Your task to perform on an android device: delete the emails in spam in the gmail app Image 0: 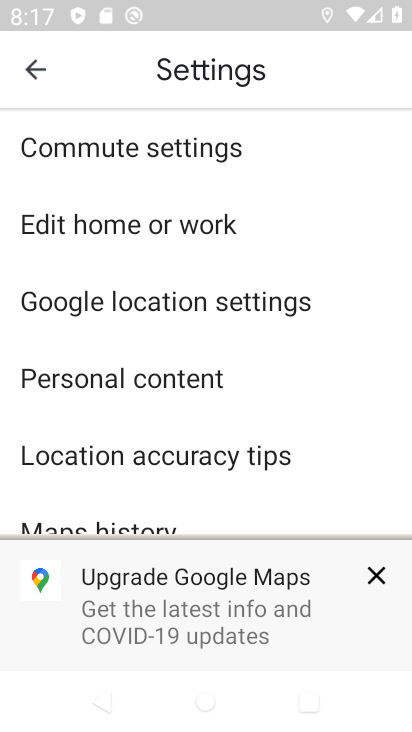
Step 0: press home button
Your task to perform on an android device: delete the emails in spam in the gmail app Image 1: 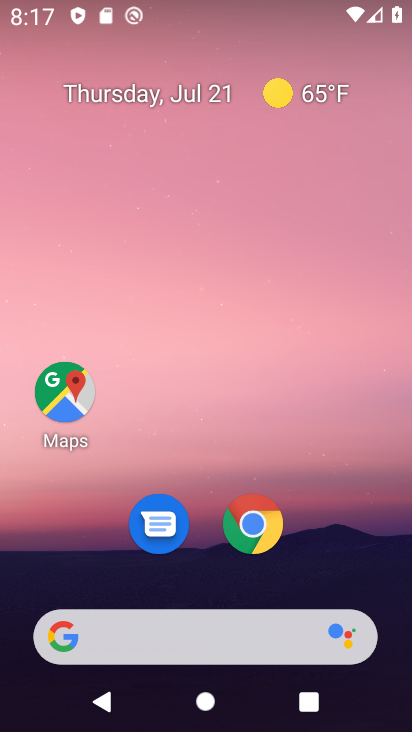
Step 1: drag from (223, 476) to (181, 195)
Your task to perform on an android device: delete the emails in spam in the gmail app Image 2: 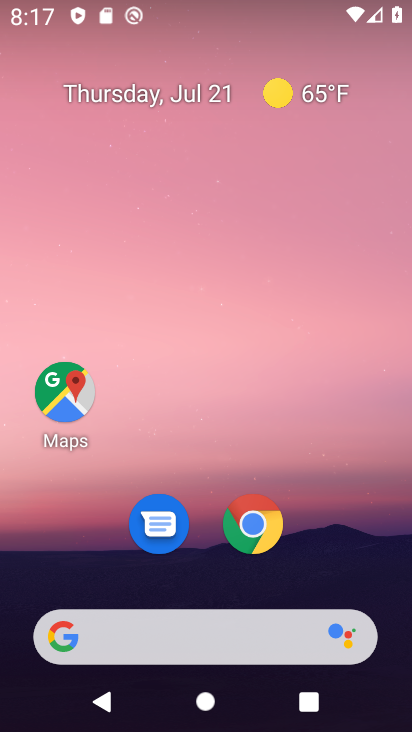
Step 2: drag from (181, 637) to (148, 150)
Your task to perform on an android device: delete the emails in spam in the gmail app Image 3: 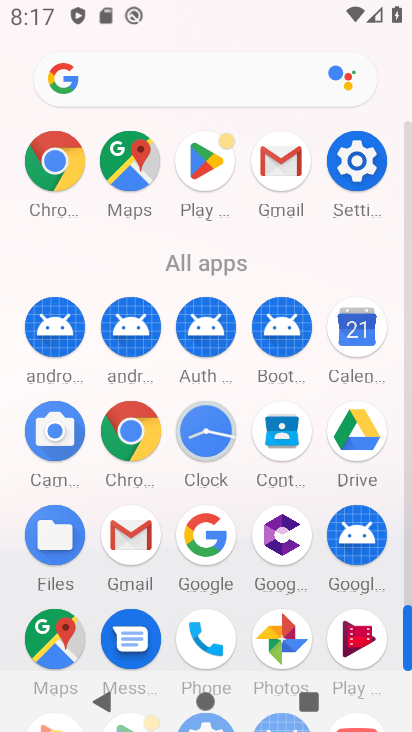
Step 3: click (264, 172)
Your task to perform on an android device: delete the emails in spam in the gmail app Image 4: 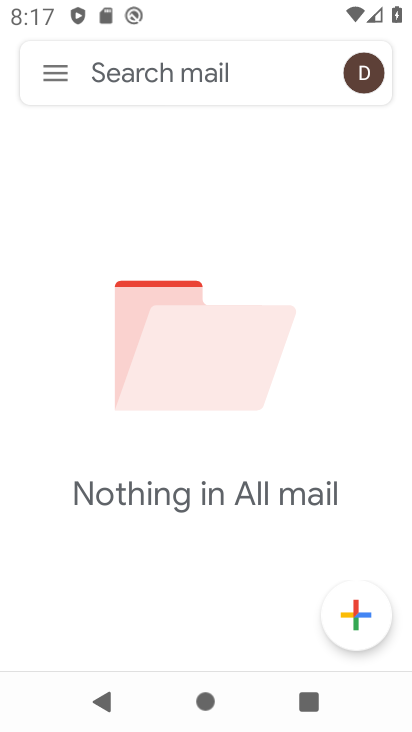
Step 4: click (60, 82)
Your task to perform on an android device: delete the emails in spam in the gmail app Image 5: 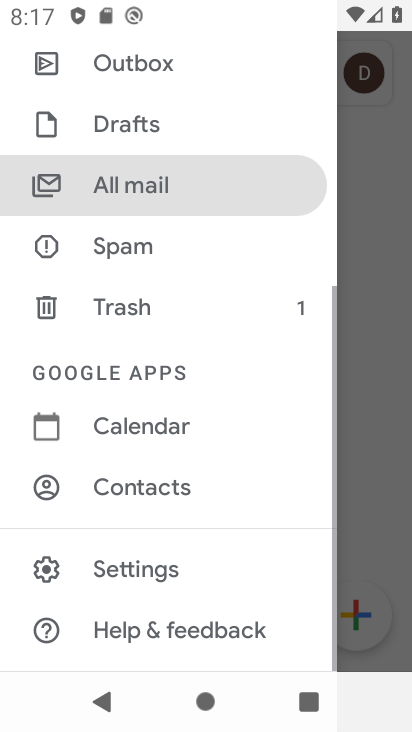
Step 5: drag from (173, 552) to (142, 266)
Your task to perform on an android device: delete the emails in spam in the gmail app Image 6: 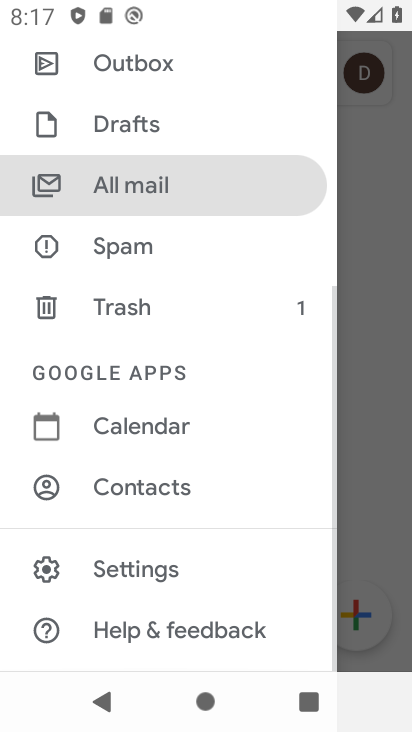
Step 6: click (117, 238)
Your task to perform on an android device: delete the emails in spam in the gmail app Image 7: 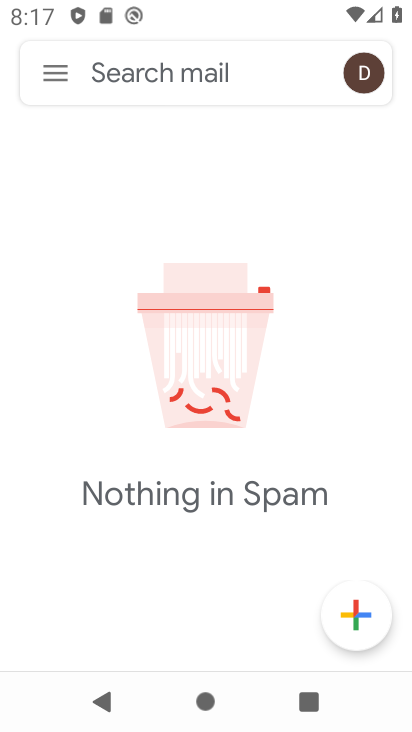
Step 7: task complete